Your task to perform on an android device: change the clock display to analog Image 0: 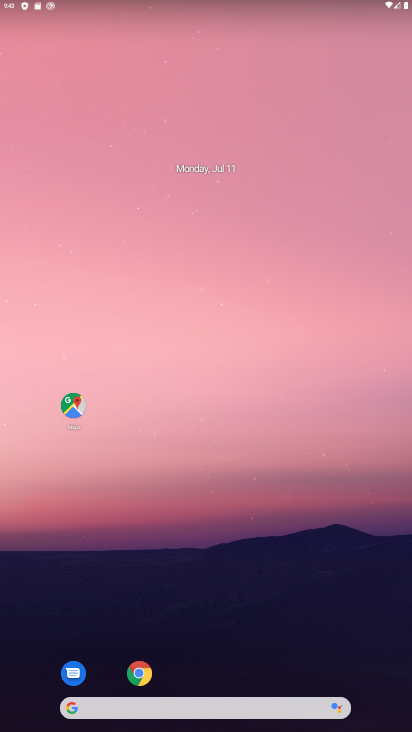
Step 0: drag from (203, 679) to (246, 96)
Your task to perform on an android device: change the clock display to analog Image 1: 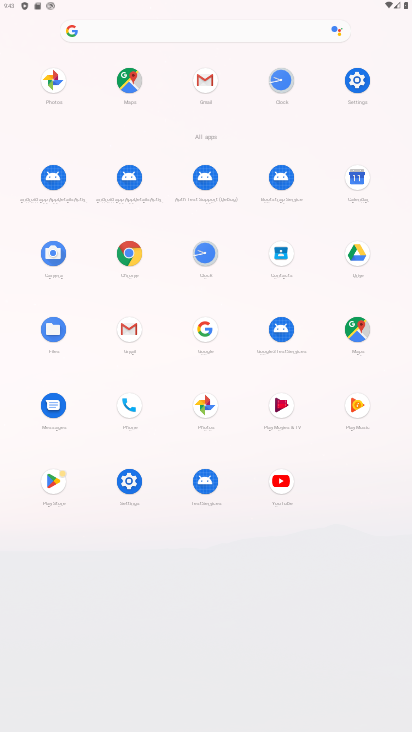
Step 1: click (221, 258)
Your task to perform on an android device: change the clock display to analog Image 2: 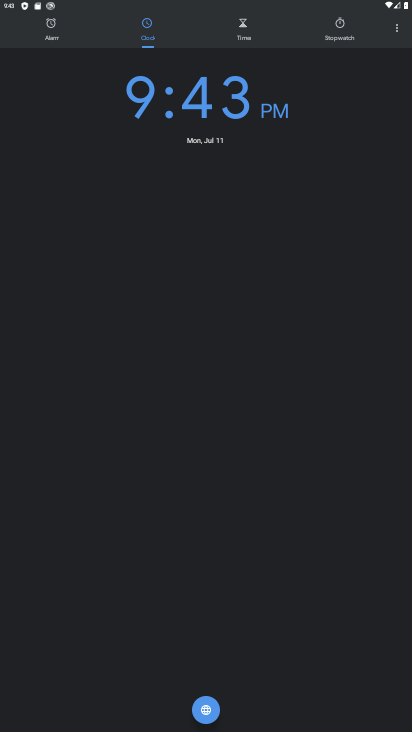
Step 2: click (405, 26)
Your task to perform on an android device: change the clock display to analog Image 3: 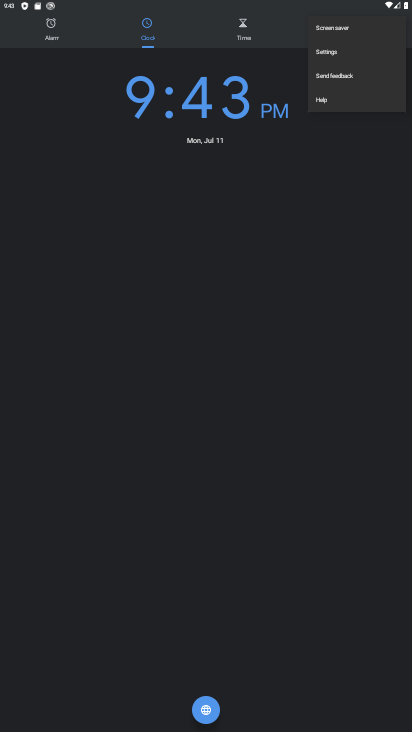
Step 3: click (351, 54)
Your task to perform on an android device: change the clock display to analog Image 4: 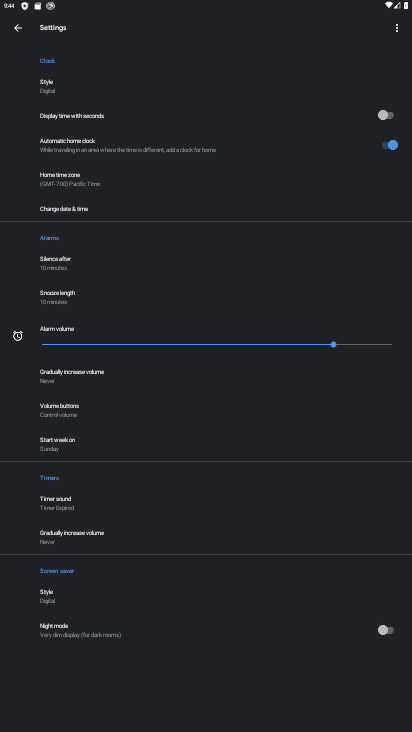
Step 4: click (144, 82)
Your task to perform on an android device: change the clock display to analog Image 5: 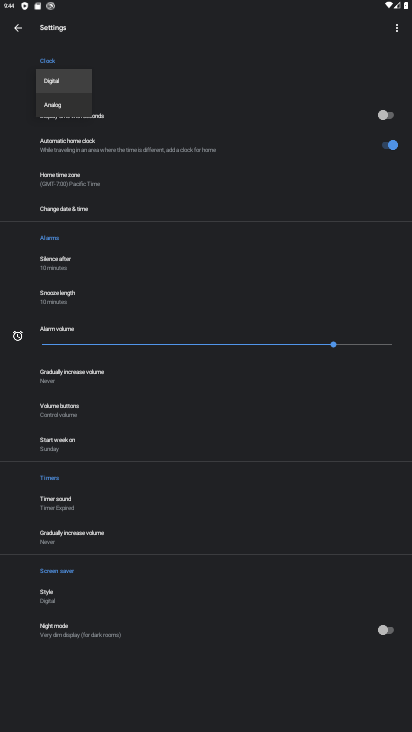
Step 5: click (62, 116)
Your task to perform on an android device: change the clock display to analog Image 6: 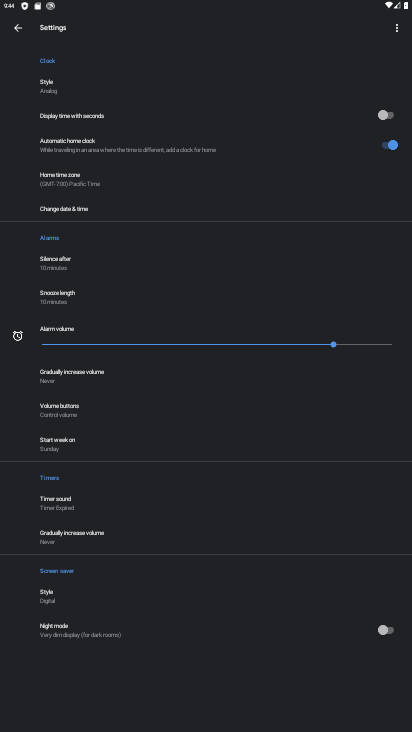
Step 6: task complete